Your task to perform on an android device: Go to battery settings Image 0: 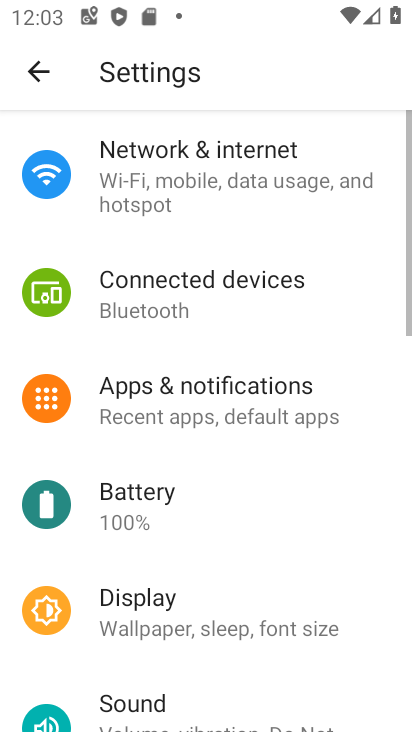
Step 0: drag from (363, 540) to (367, 270)
Your task to perform on an android device: Go to battery settings Image 1: 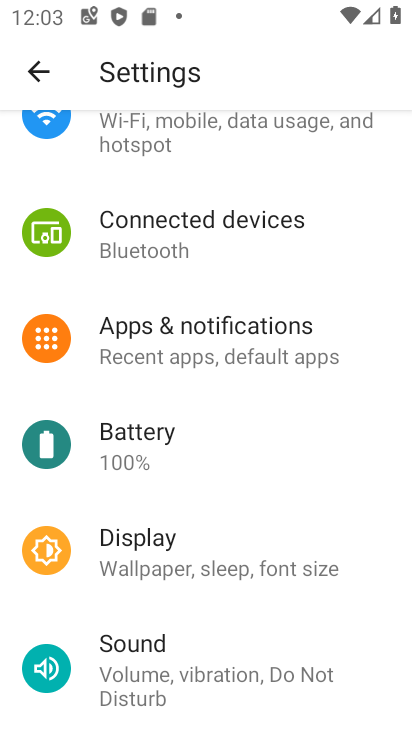
Step 1: click (174, 443)
Your task to perform on an android device: Go to battery settings Image 2: 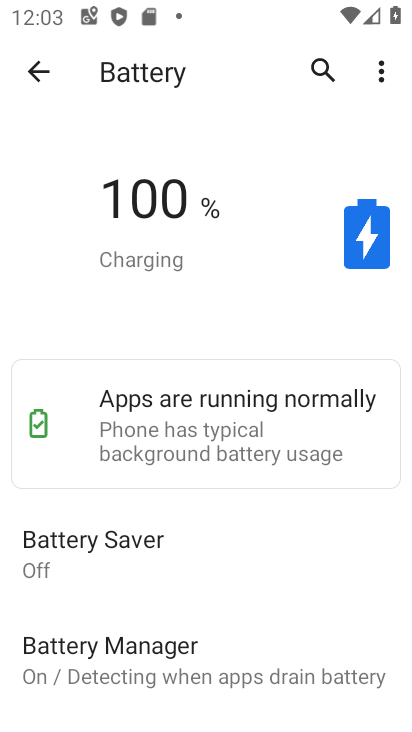
Step 2: task complete